Your task to perform on an android device: open app "Indeed Job Search" (install if not already installed) Image 0: 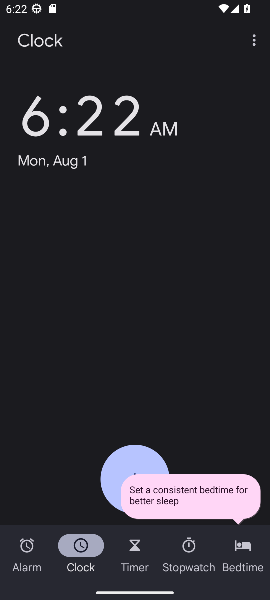
Step 0: press home button
Your task to perform on an android device: open app "Indeed Job Search" (install if not already installed) Image 1: 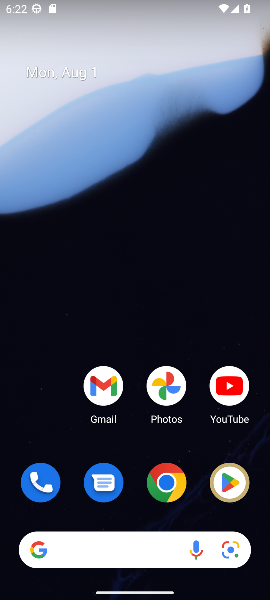
Step 1: click (240, 472)
Your task to perform on an android device: open app "Indeed Job Search" (install if not already installed) Image 2: 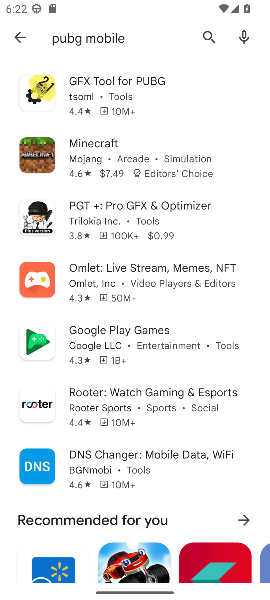
Step 2: click (205, 34)
Your task to perform on an android device: open app "Indeed Job Search" (install if not already installed) Image 3: 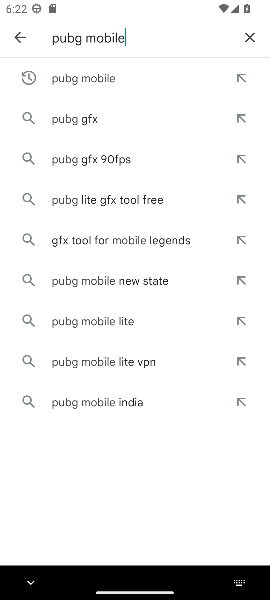
Step 3: click (256, 33)
Your task to perform on an android device: open app "Indeed Job Search" (install if not already installed) Image 4: 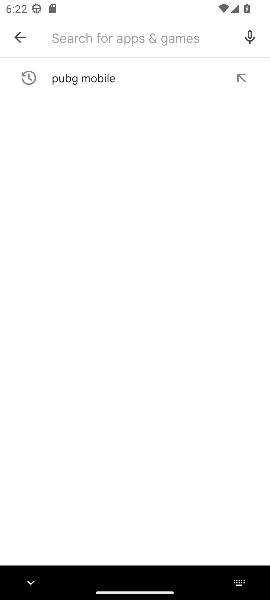
Step 4: type "indeed job search"
Your task to perform on an android device: open app "Indeed Job Search" (install if not already installed) Image 5: 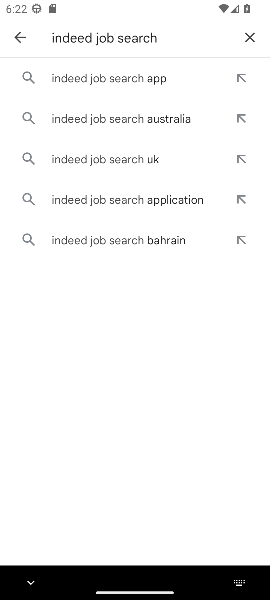
Step 5: click (113, 76)
Your task to perform on an android device: open app "Indeed Job Search" (install if not already installed) Image 6: 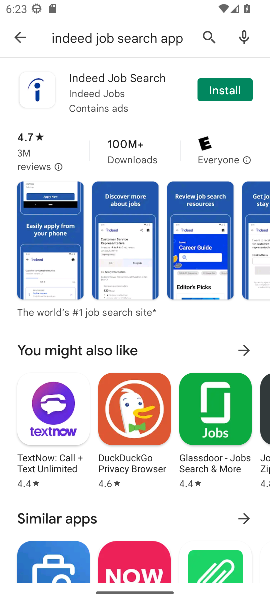
Step 6: click (108, 83)
Your task to perform on an android device: open app "Indeed Job Search" (install if not already installed) Image 7: 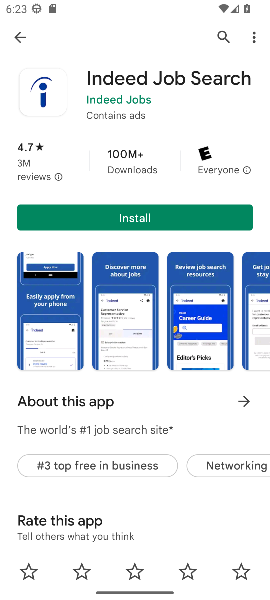
Step 7: click (111, 209)
Your task to perform on an android device: open app "Indeed Job Search" (install if not already installed) Image 8: 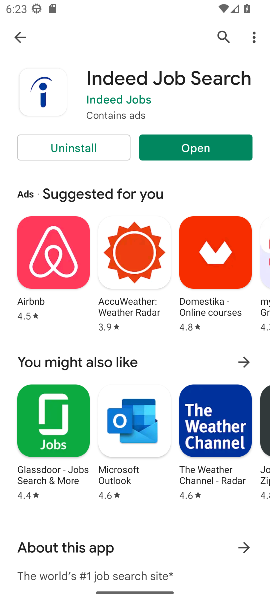
Step 8: click (181, 142)
Your task to perform on an android device: open app "Indeed Job Search" (install if not already installed) Image 9: 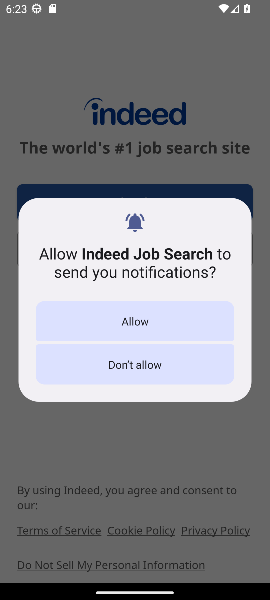
Step 9: click (179, 310)
Your task to perform on an android device: open app "Indeed Job Search" (install if not already installed) Image 10: 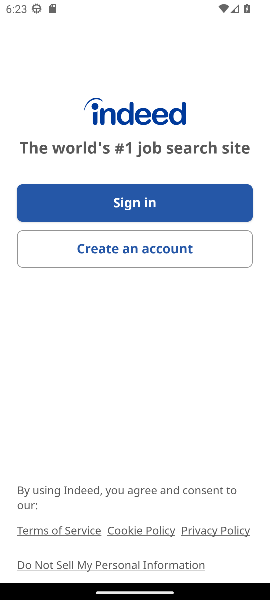
Step 10: task complete